Your task to perform on an android device: turn off picture-in-picture Image 0: 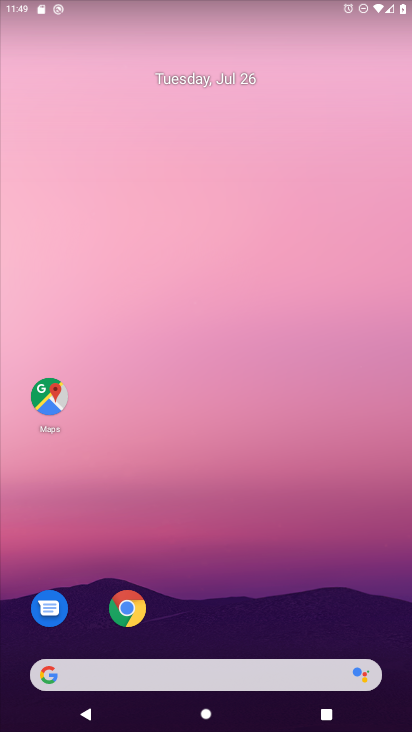
Step 0: click (129, 608)
Your task to perform on an android device: turn off picture-in-picture Image 1: 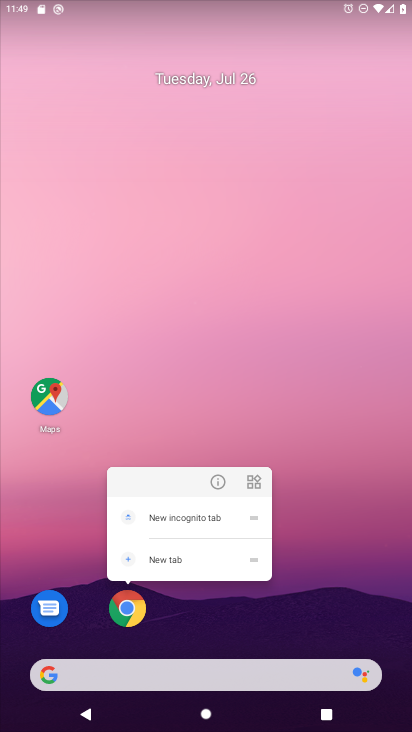
Step 1: click (217, 477)
Your task to perform on an android device: turn off picture-in-picture Image 2: 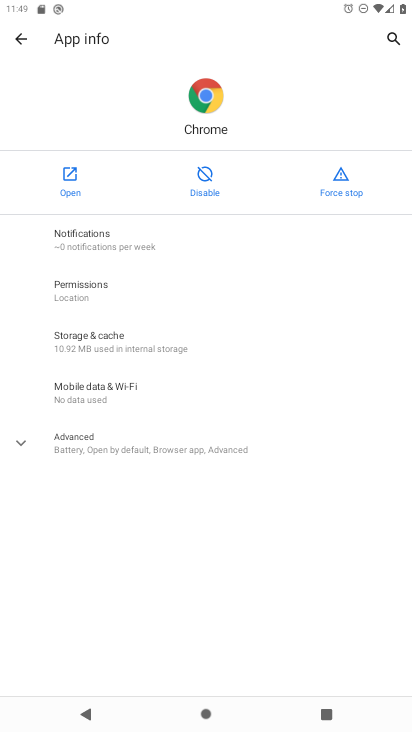
Step 2: click (172, 450)
Your task to perform on an android device: turn off picture-in-picture Image 3: 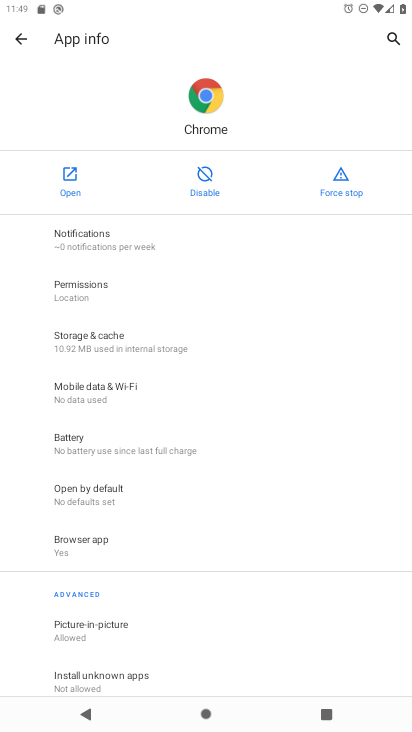
Step 3: click (116, 624)
Your task to perform on an android device: turn off picture-in-picture Image 4: 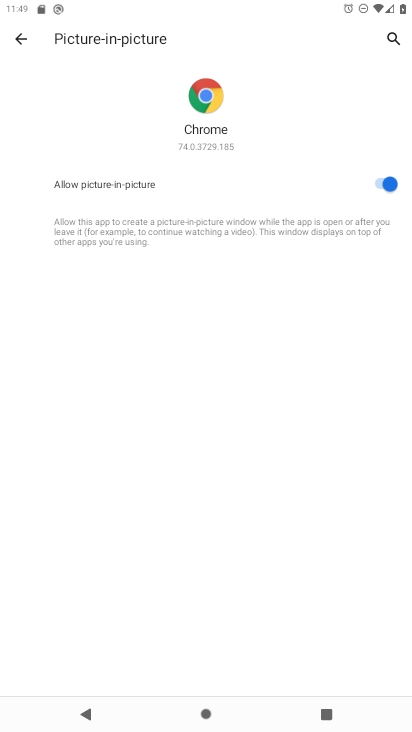
Step 4: click (396, 189)
Your task to perform on an android device: turn off picture-in-picture Image 5: 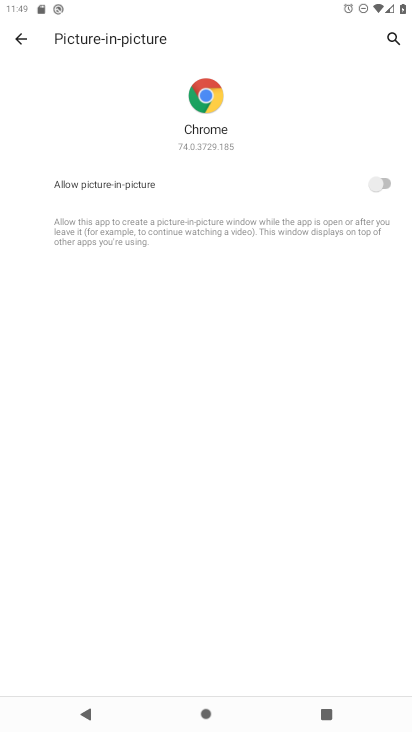
Step 5: task complete